Your task to perform on an android device: Open Google Image 0: 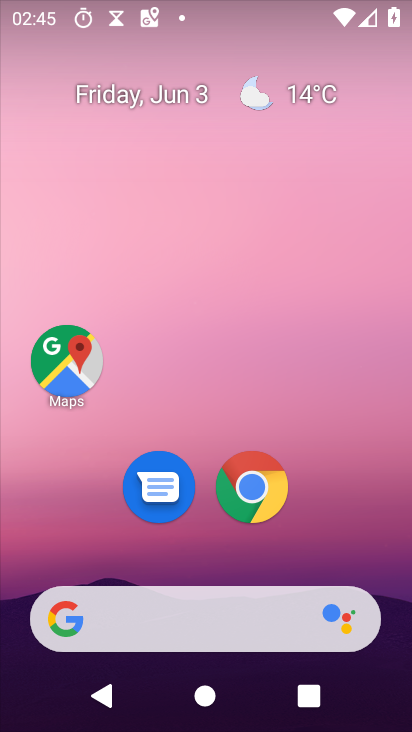
Step 0: press home button
Your task to perform on an android device: Open Google Image 1: 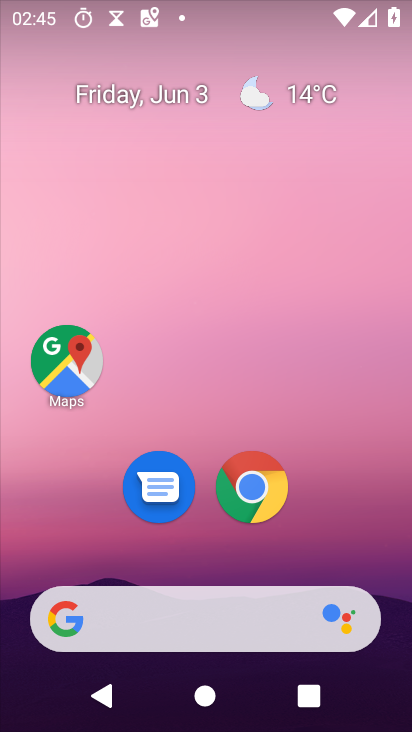
Step 1: drag from (305, 302) to (143, 0)
Your task to perform on an android device: Open Google Image 2: 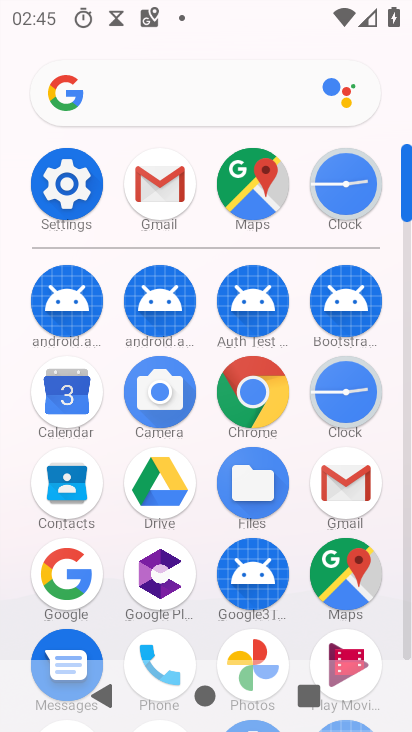
Step 2: click (82, 572)
Your task to perform on an android device: Open Google Image 3: 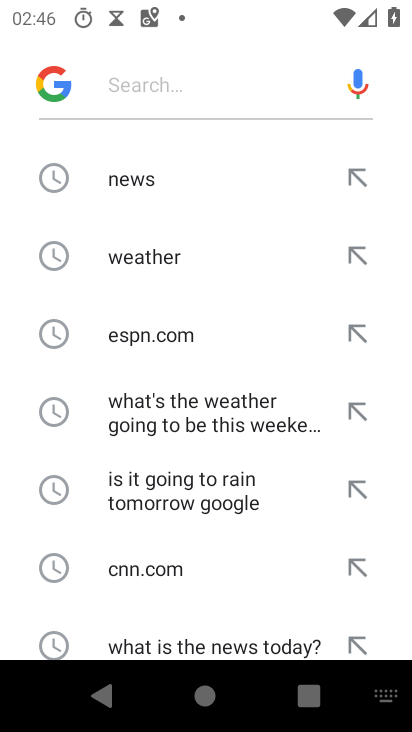
Step 3: task complete